Your task to perform on an android device: star an email in the gmail app Image 0: 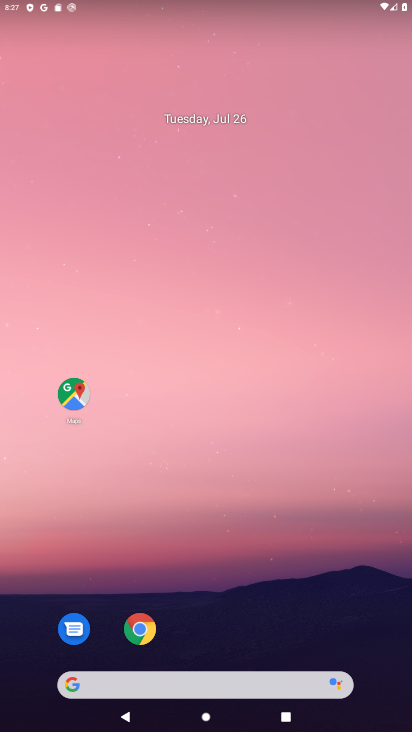
Step 0: press home button
Your task to perform on an android device: star an email in the gmail app Image 1: 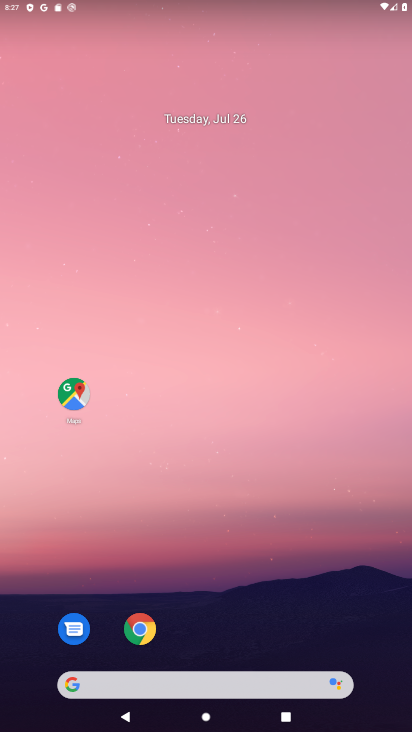
Step 1: drag from (297, 631) to (297, 126)
Your task to perform on an android device: star an email in the gmail app Image 2: 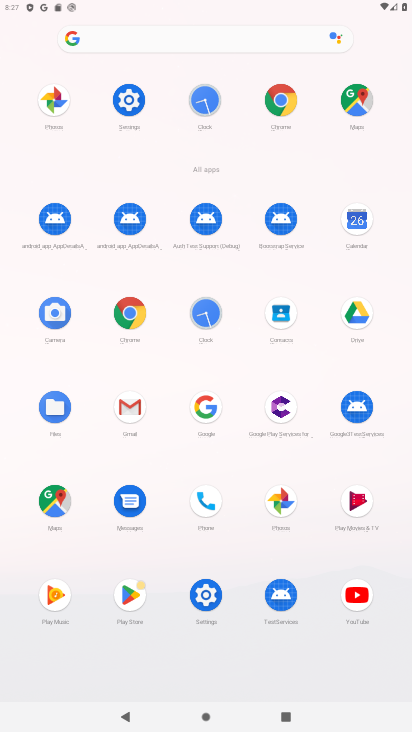
Step 2: click (117, 414)
Your task to perform on an android device: star an email in the gmail app Image 3: 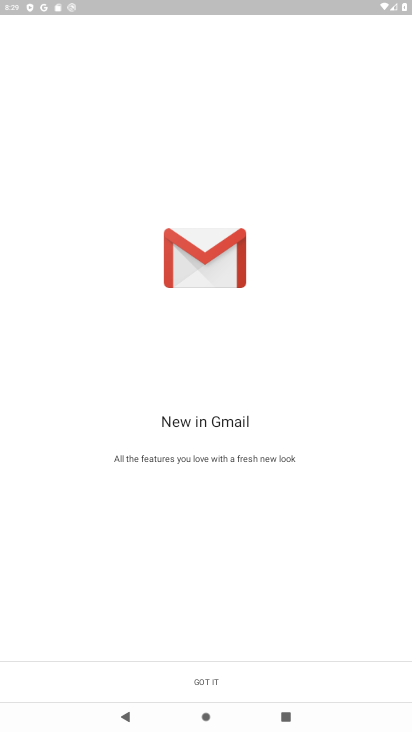
Step 3: click (186, 682)
Your task to perform on an android device: star an email in the gmail app Image 4: 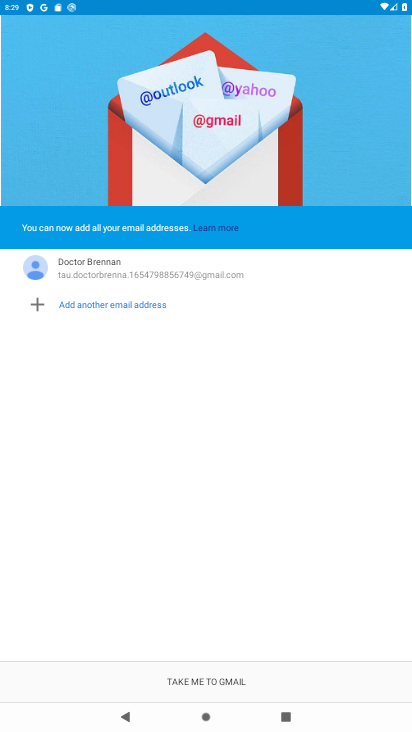
Step 4: click (181, 683)
Your task to perform on an android device: star an email in the gmail app Image 5: 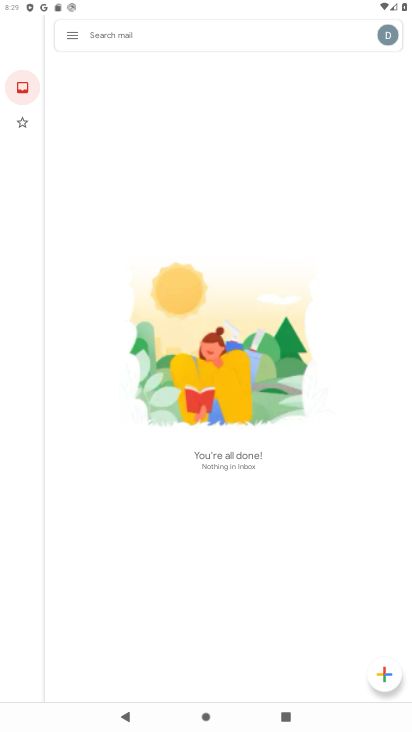
Step 5: task complete